Your task to perform on an android device: open the mobile data screen to see how much data has been used Image 0: 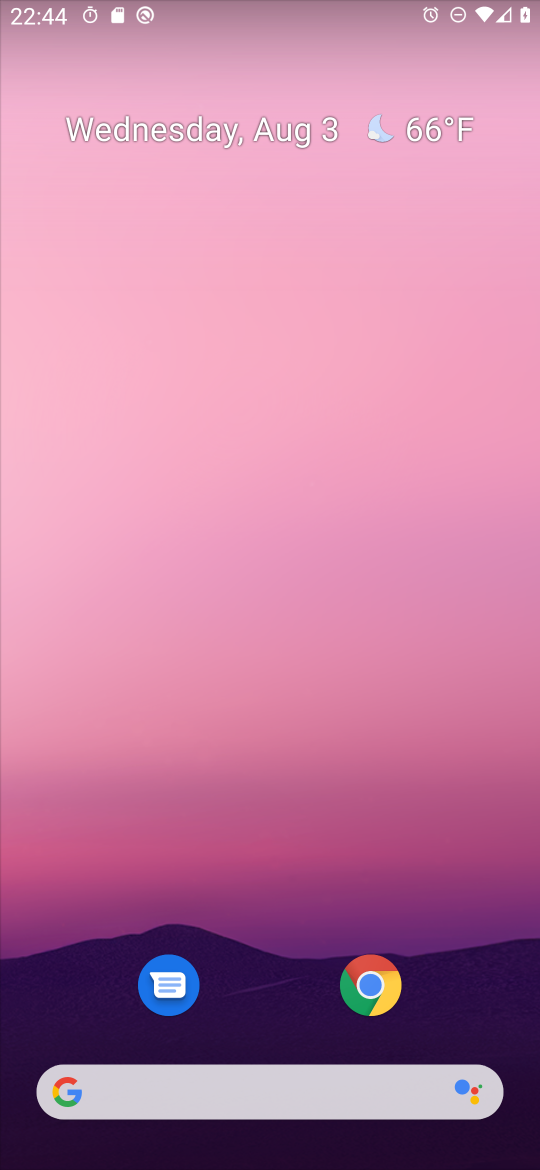
Step 0: drag from (281, 956) to (236, 261)
Your task to perform on an android device: open the mobile data screen to see how much data has been used Image 1: 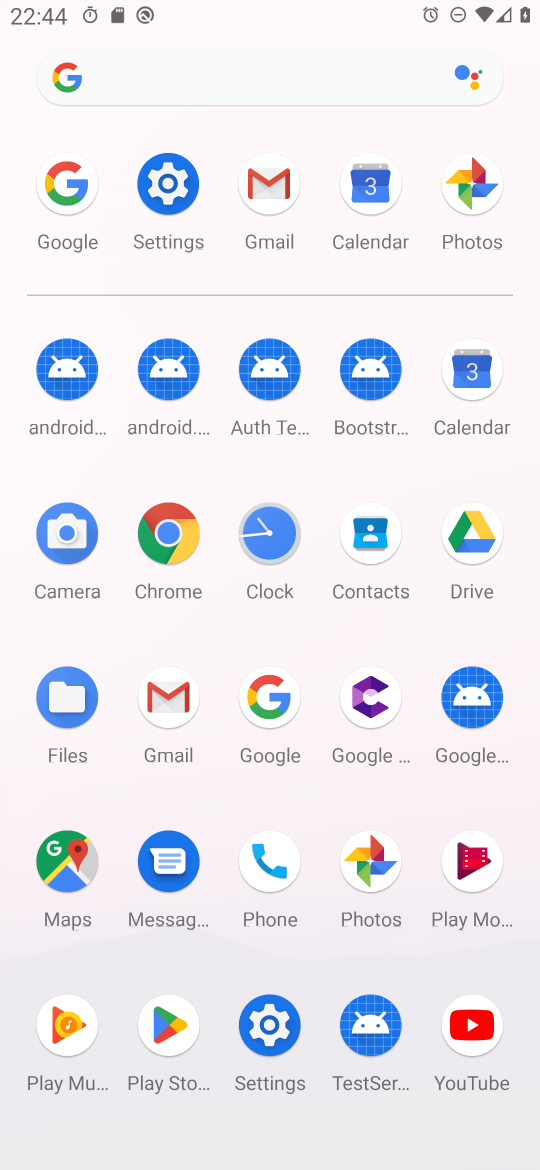
Step 1: click (174, 198)
Your task to perform on an android device: open the mobile data screen to see how much data has been used Image 2: 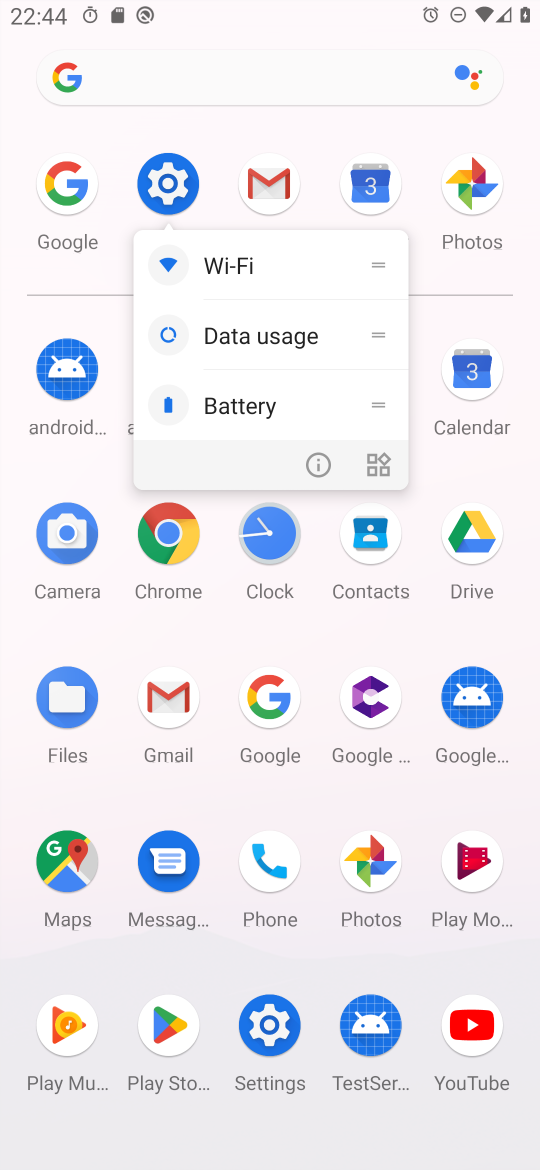
Step 2: click (174, 198)
Your task to perform on an android device: open the mobile data screen to see how much data has been used Image 3: 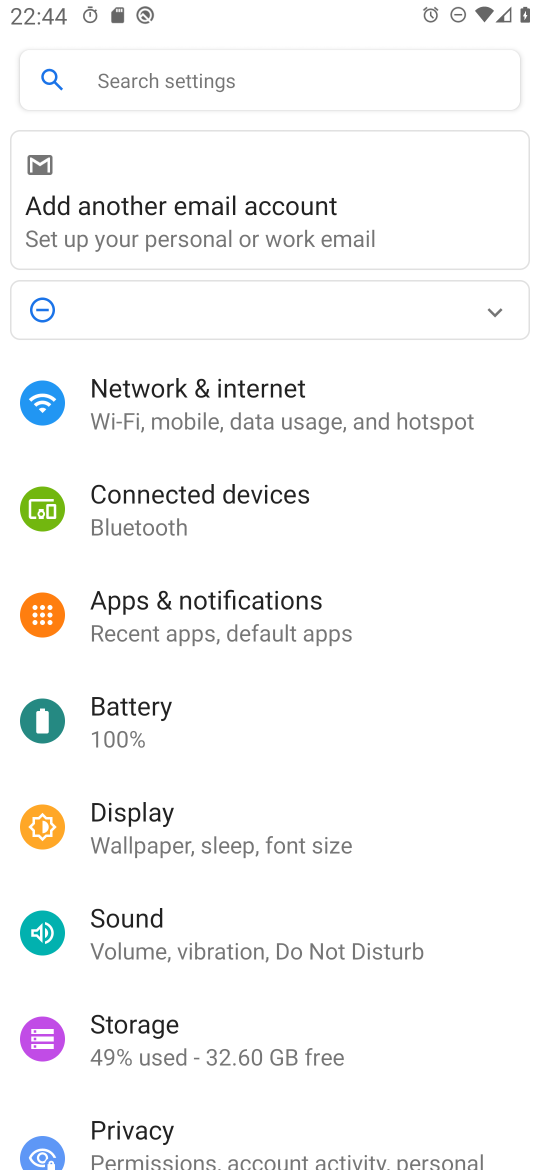
Step 3: click (207, 383)
Your task to perform on an android device: open the mobile data screen to see how much data has been used Image 4: 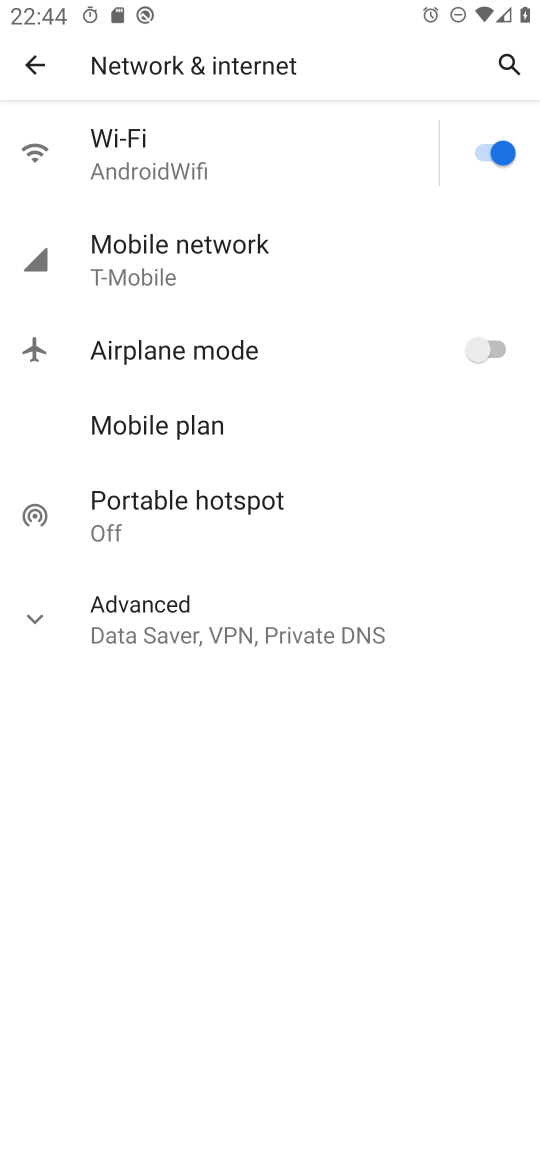
Step 4: click (187, 282)
Your task to perform on an android device: open the mobile data screen to see how much data has been used Image 5: 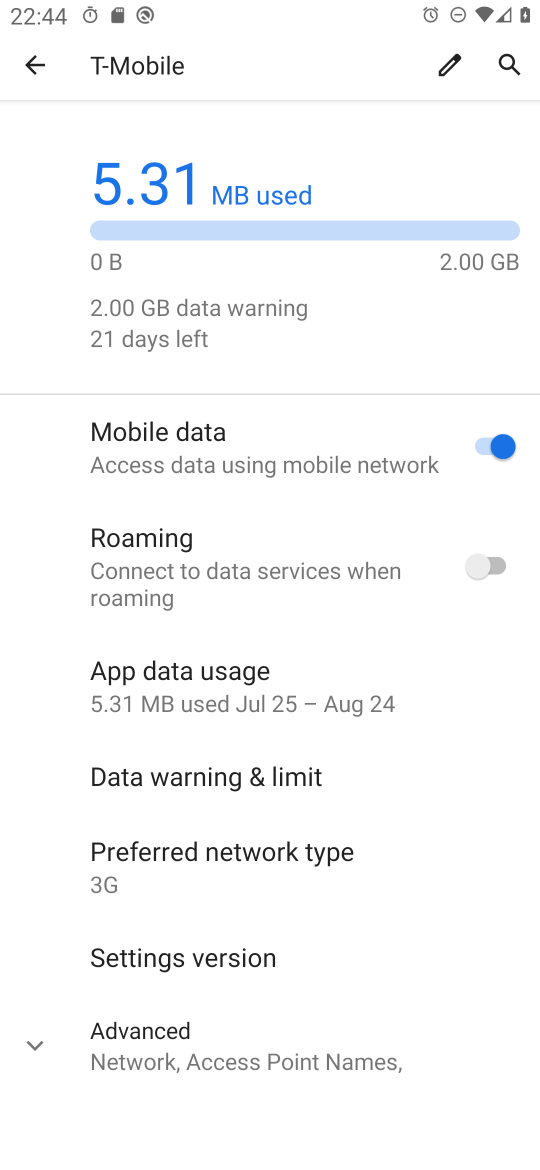
Step 5: task complete